Your task to perform on an android device: change the clock style Image 0: 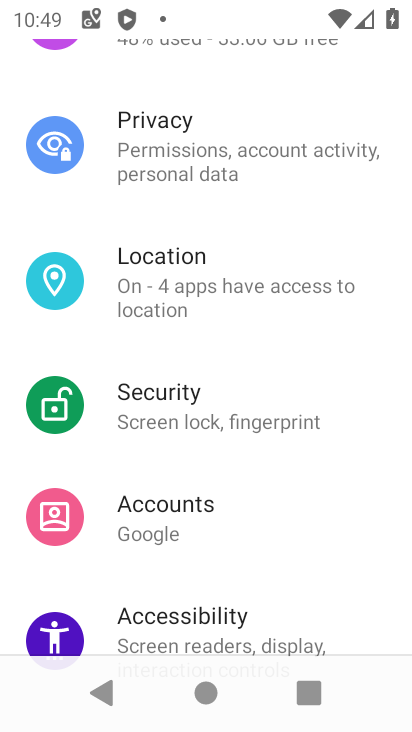
Step 0: press home button
Your task to perform on an android device: change the clock style Image 1: 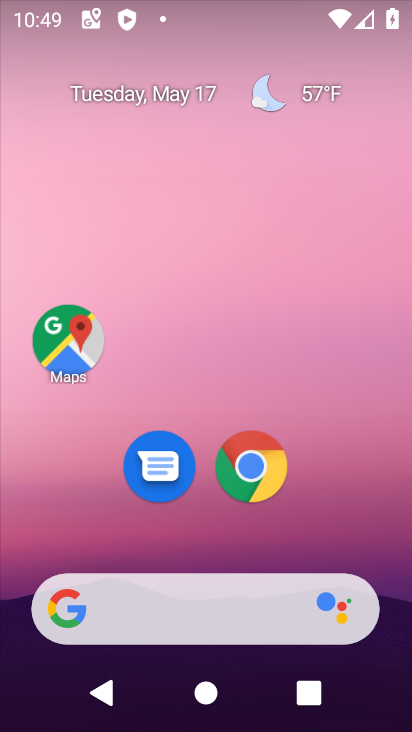
Step 1: drag from (229, 548) to (335, 4)
Your task to perform on an android device: change the clock style Image 2: 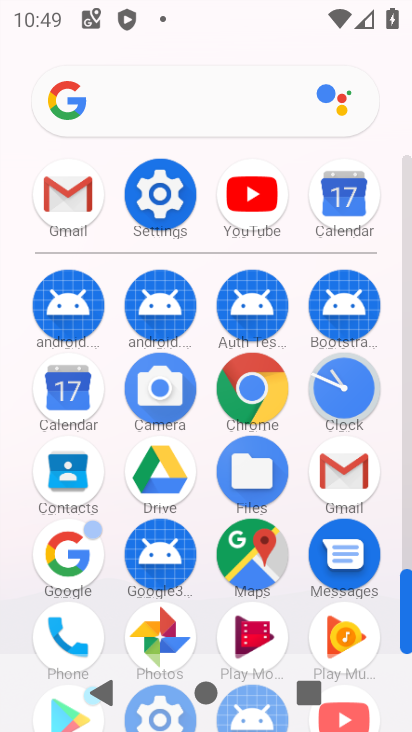
Step 2: click (355, 371)
Your task to perform on an android device: change the clock style Image 3: 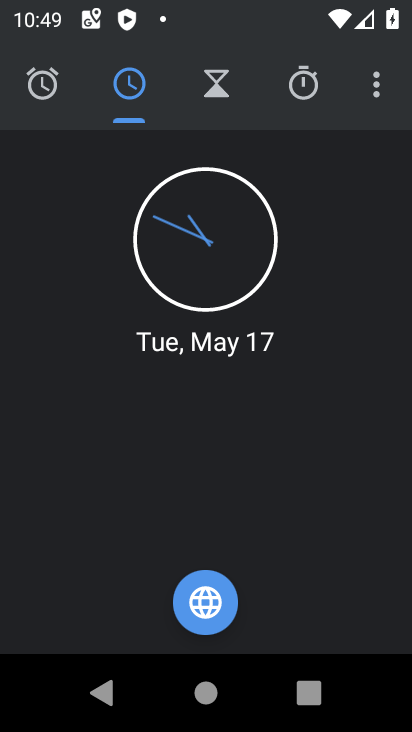
Step 3: click (378, 76)
Your task to perform on an android device: change the clock style Image 4: 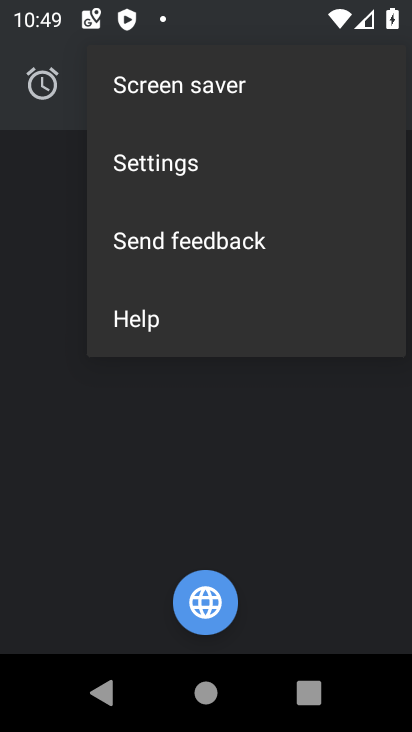
Step 4: click (121, 172)
Your task to perform on an android device: change the clock style Image 5: 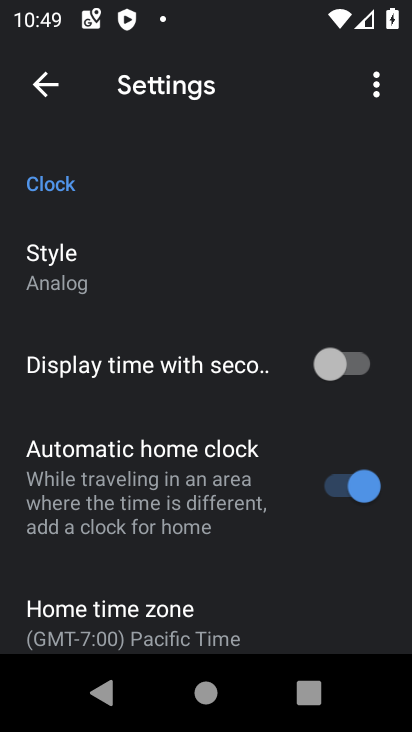
Step 5: click (89, 294)
Your task to perform on an android device: change the clock style Image 6: 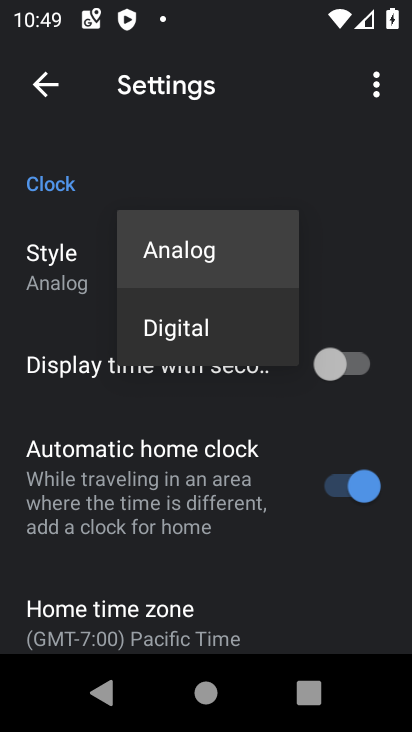
Step 6: click (180, 314)
Your task to perform on an android device: change the clock style Image 7: 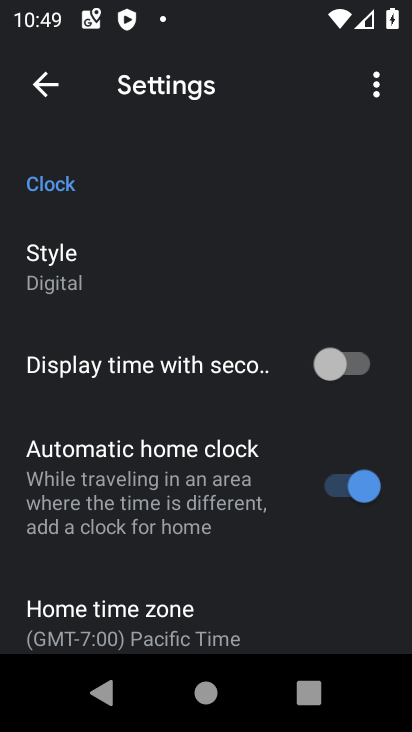
Step 7: task complete